Your task to perform on an android device: Open Android settings Image 0: 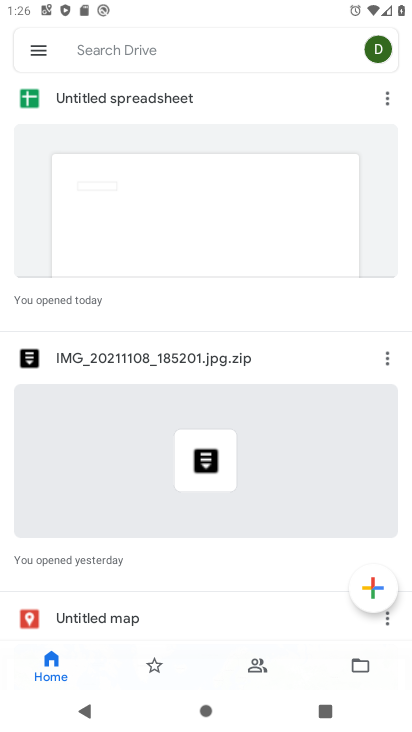
Step 0: press home button
Your task to perform on an android device: Open Android settings Image 1: 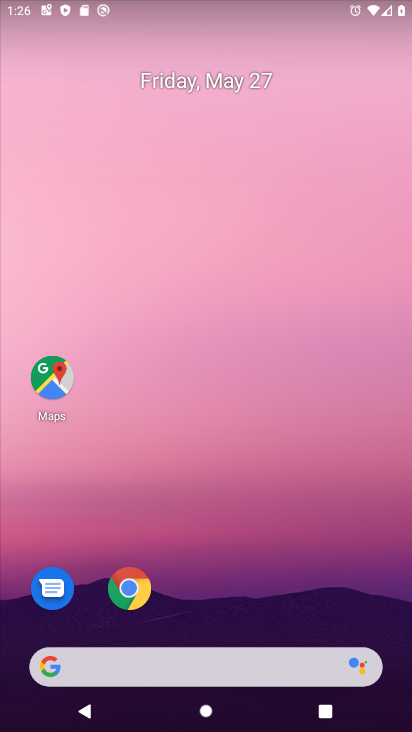
Step 1: drag from (225, 617) to (218, 49)
Your task to perform on an android device: Open Android settings Image 2: 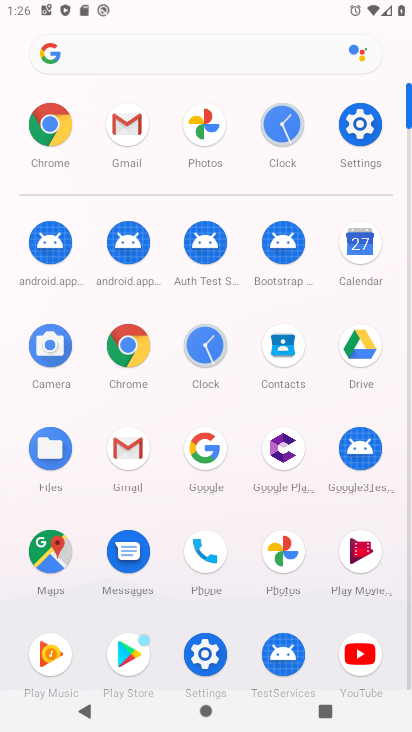
Step 2: click (355, 118)
Your task to perform on an android device: Open Android settings Image 3: 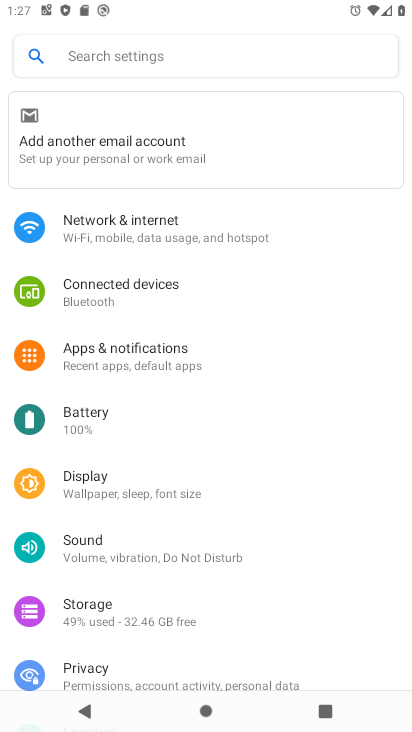
Step 3: drag from (190, 637) to (213, 86)
Your task to perform on an android device: Open Android settings Image 4: 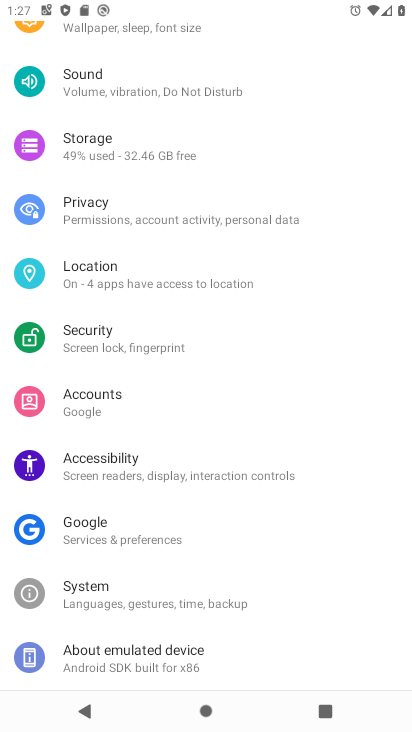
Step 4: drag from (166, 661) to (180, 60)
Your task to perform on an android device: Open Android settings Image 5: 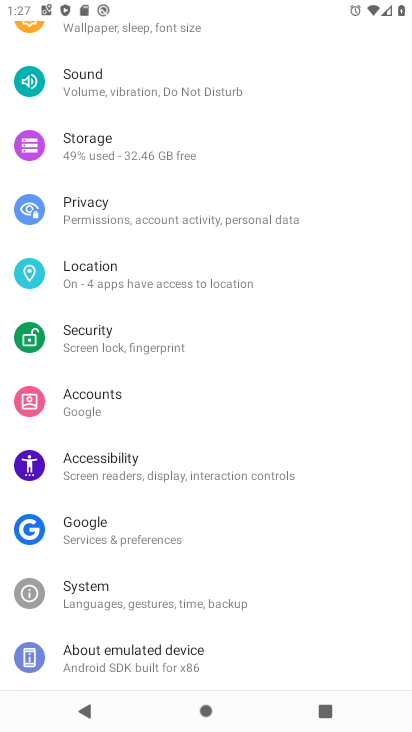
Step 5: click (211, 658)
Your task to perform on an android device: Open Android settings Image 6: 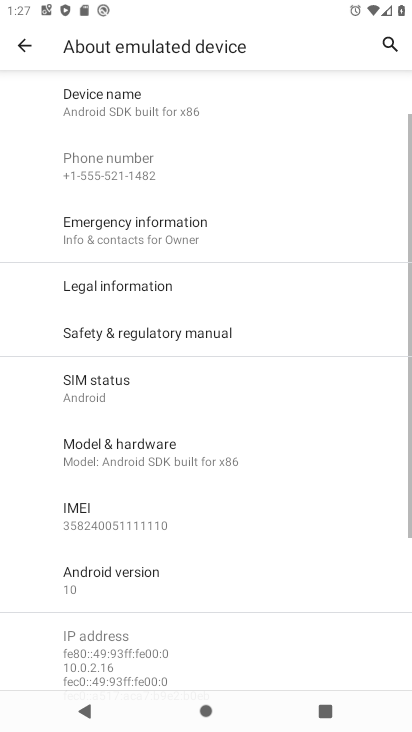
Step 6: click (135, 580)
Your task to perform on an android device: Open Android settings Image 7: 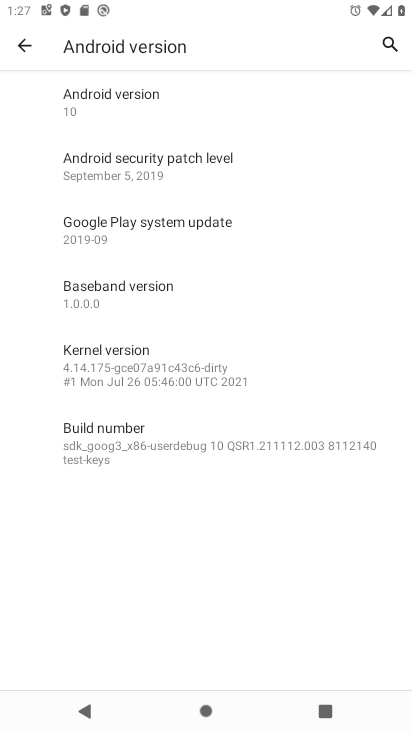
Step 7: task complete